Your task to perform on an android device: Open Google Maps Image 0: 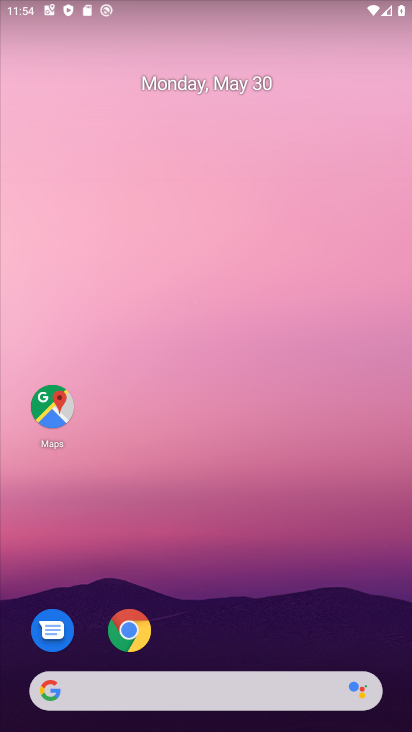
Step 0: press home button
Your task to perform on an android device: Open Google Maps Image 1: 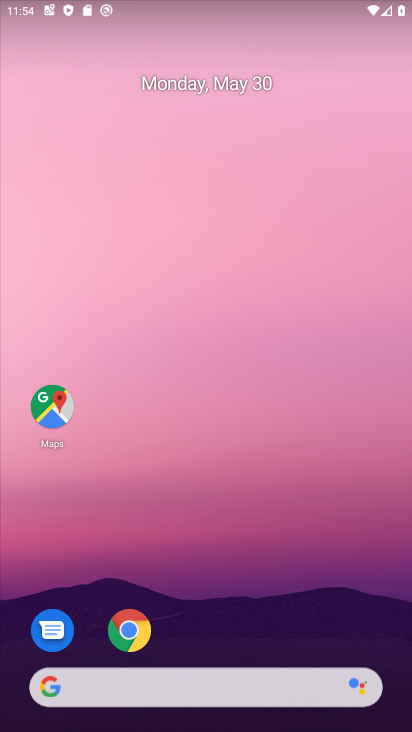
Step 1: click (59, 421)
Your task to perform on an android device: Open Google Maps Image 2: 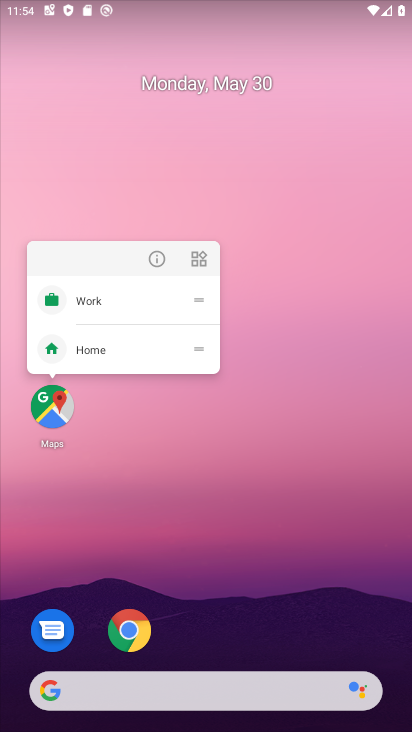
Step 2: click (52, 410)
Your task to perform on an android device: Open Google Maps Image 3: 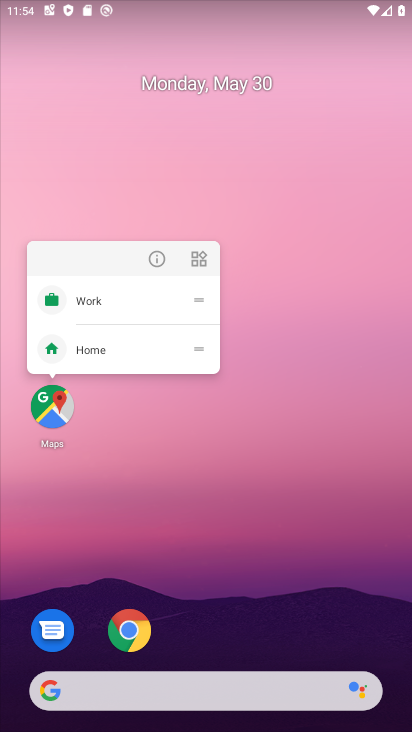
Step 3: click (52, 411)
Your task to perform on an android device: Open Google Maps Image 4: 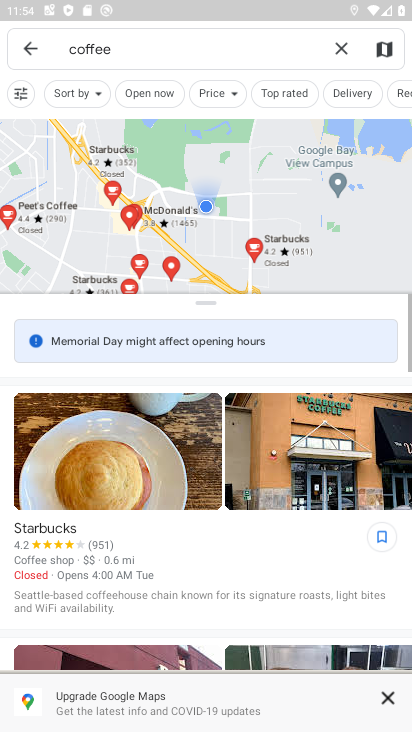
Step 4: click (35, 41)
Your task to perform on an android device: Open Google Maps Image 5: 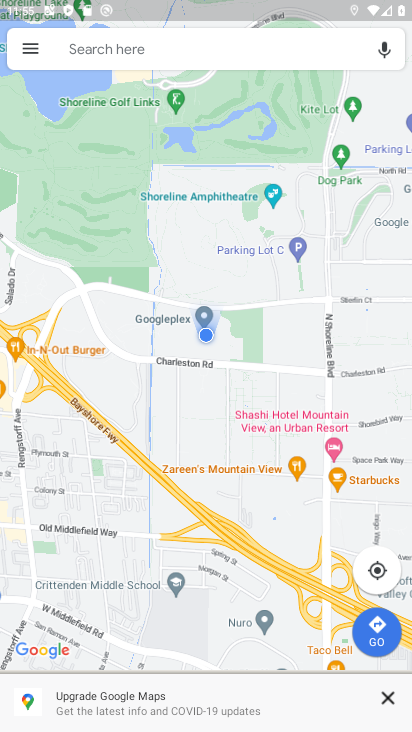
Step 5: task complete